Your task to perform on an android device: Open wifi settings Image 0: 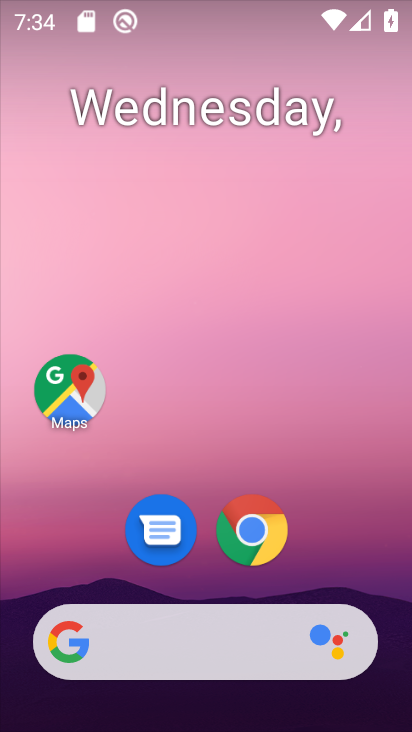
Step 0: drag from (394, 629) to (266, 77)
Your task to perform on an android device: Open wifi settings Image 1: 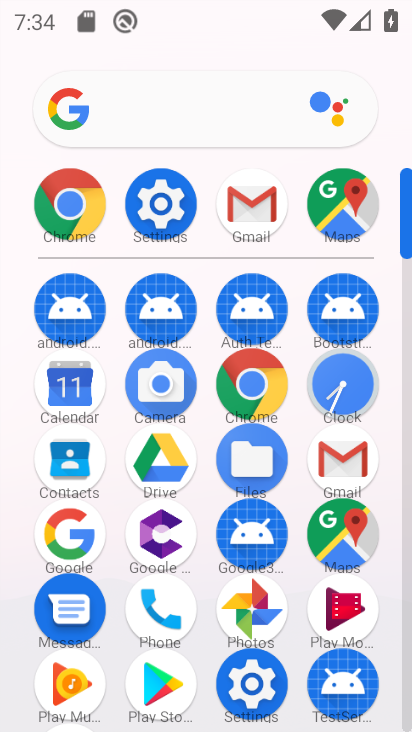
Step 1: click (175, 212)
Your task to perform on an android device: Open wifi settings Image 2: 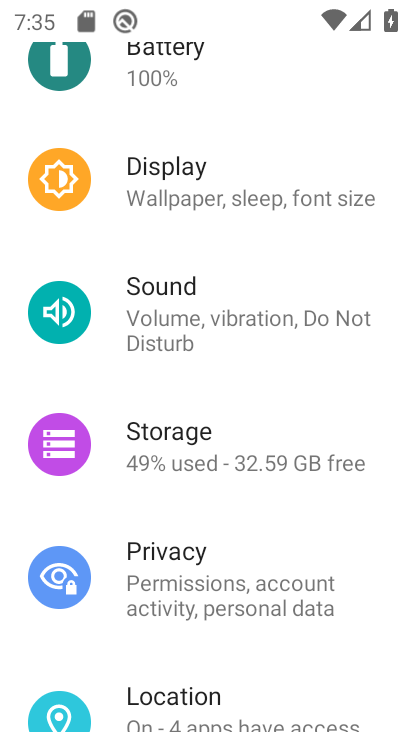
Step 2: drag from (168, 165) to (219, 620)
Your task to perform on an android device: Open wifi settings Image 3: 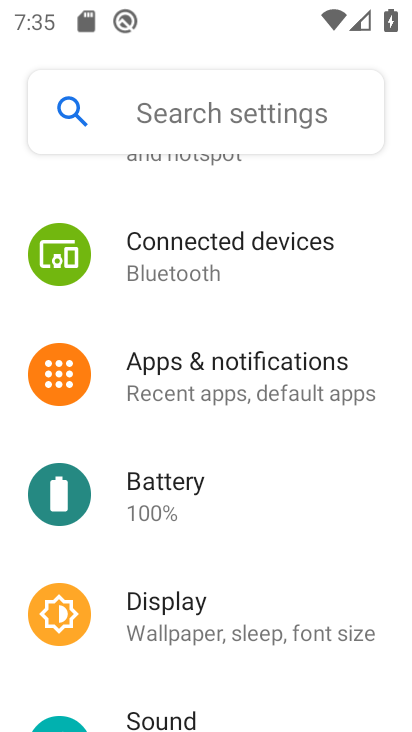
Step 3: drag from (178, 176) to (171, 681)
Your task to perform on an android device: Open wifi settings Image 4: 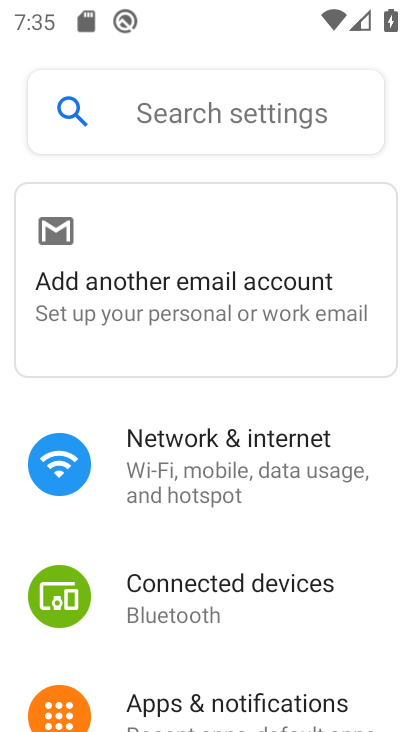
Step 4: click (262, 462)
Your task to perform on an android device: Open wifi settings Image 5: 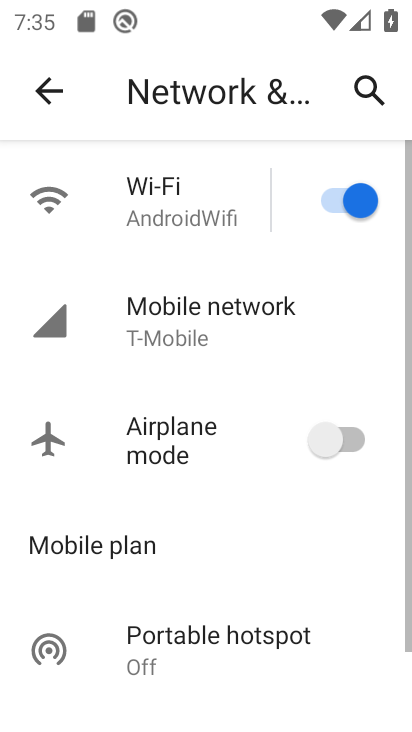
Step 5: click (230, 190)
Your task to perform on an android device: Open wifi settings Image 6: 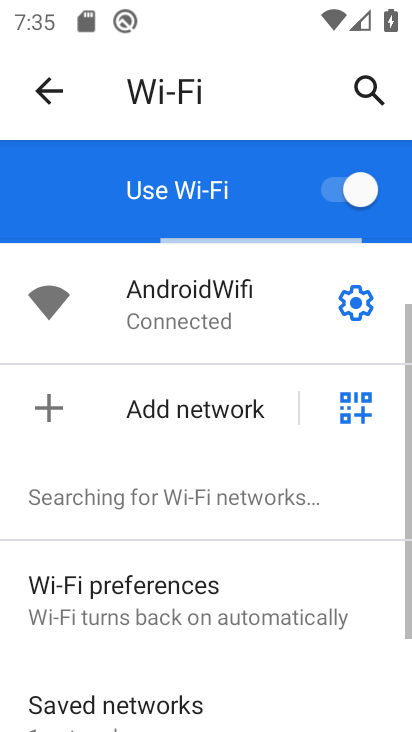
Step 6: task complete